Your task to perform on an android device: Open the stopwatch Image 0: 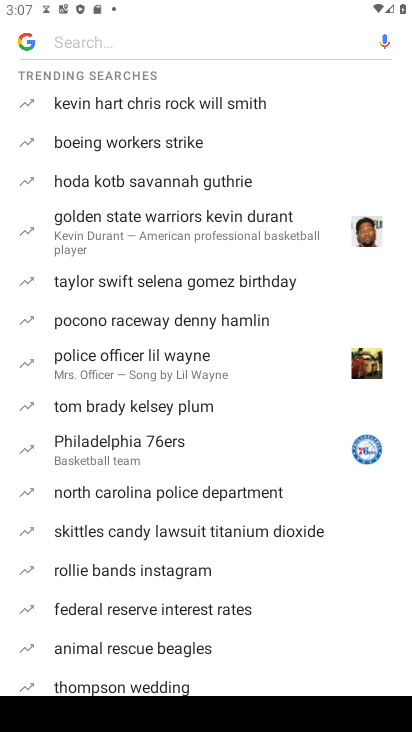
Step 0: press home button
Your task to perform on an android device: Open the stopwatch Image 1: 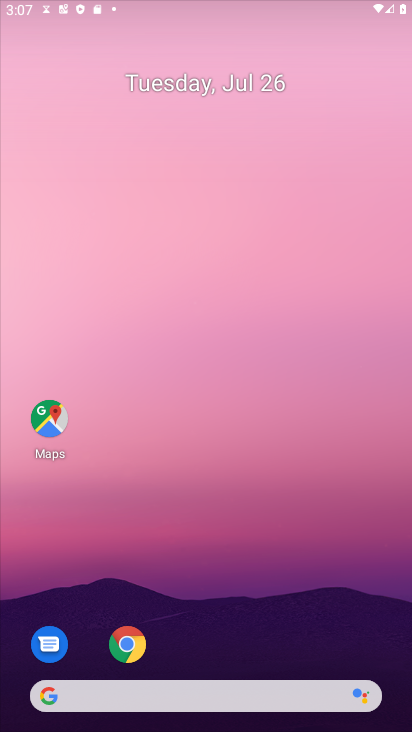
Step 1: drag from (223, 592) to (208, 79)
Your task to perform on an android device: Open the stopwatch Image 2: 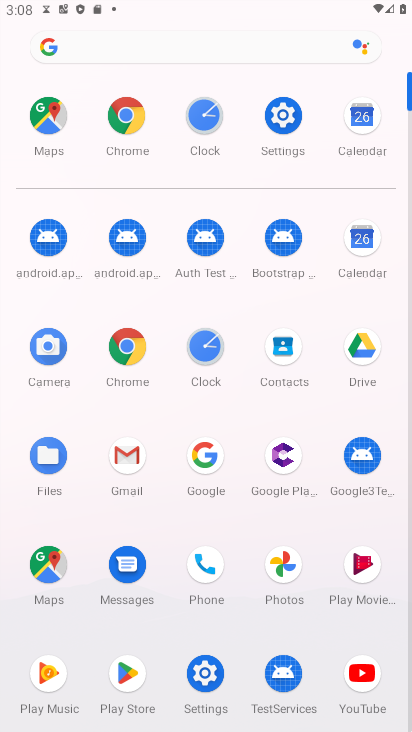
Step 2: click (204, 117)
Your task to perform on an android device: Open the stopwatch Image 3: 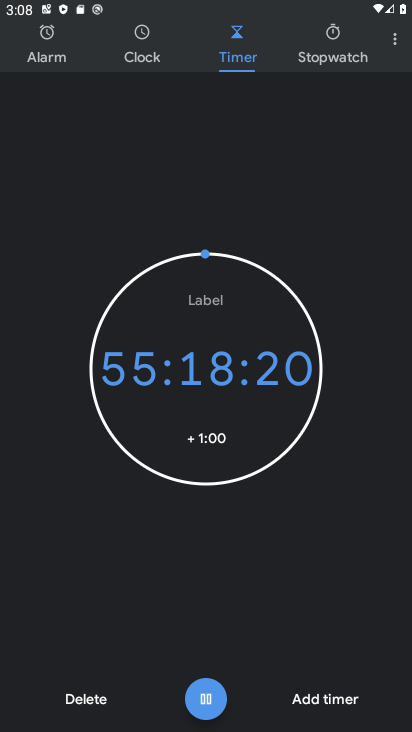
Step 3: click (344, 49)
Your task to perform on an android device: Open the stopwatch Image 4: 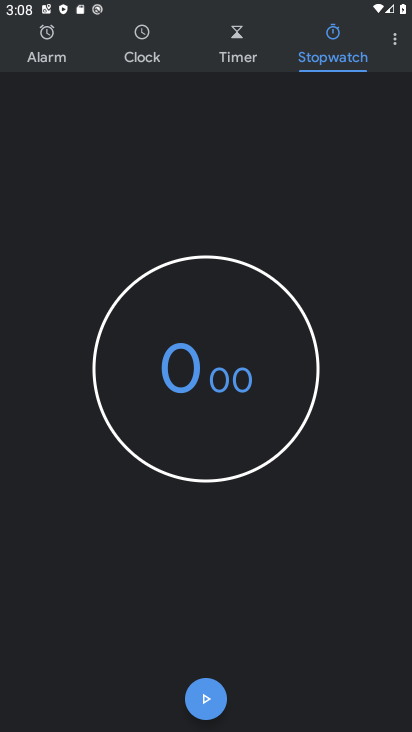
Step 4: click (211, 699)
Your task to perform on an android device: Open the stopwatch Image 5: 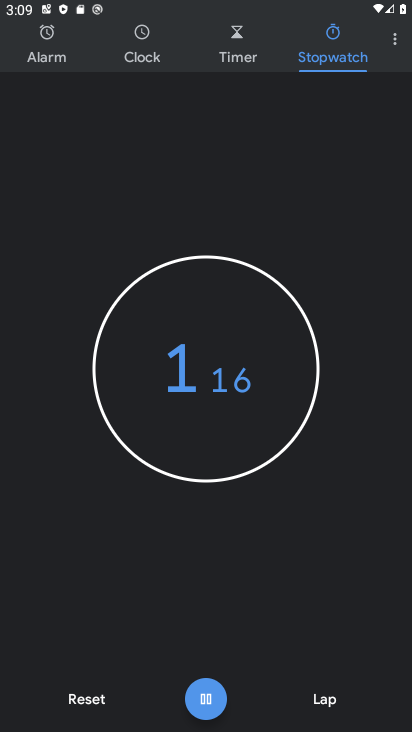
Step 5: click (199, 702)
Your task to perform on an android device: Open the stopwatch Image 6: 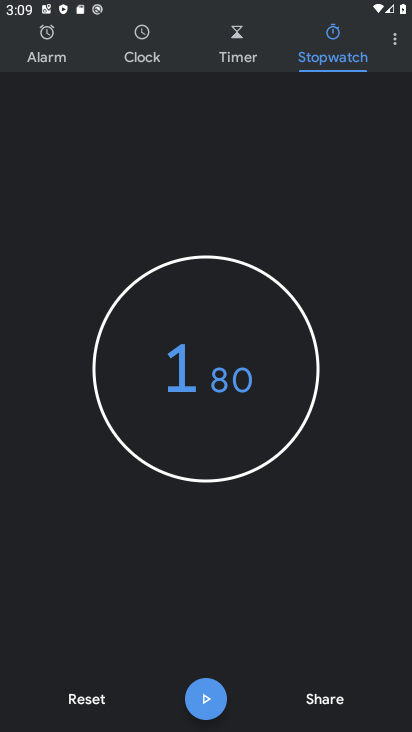
Step 6: task complete